Your task to perform on an android device: Add "usb-a" to the cart on newegg.com Image 0: 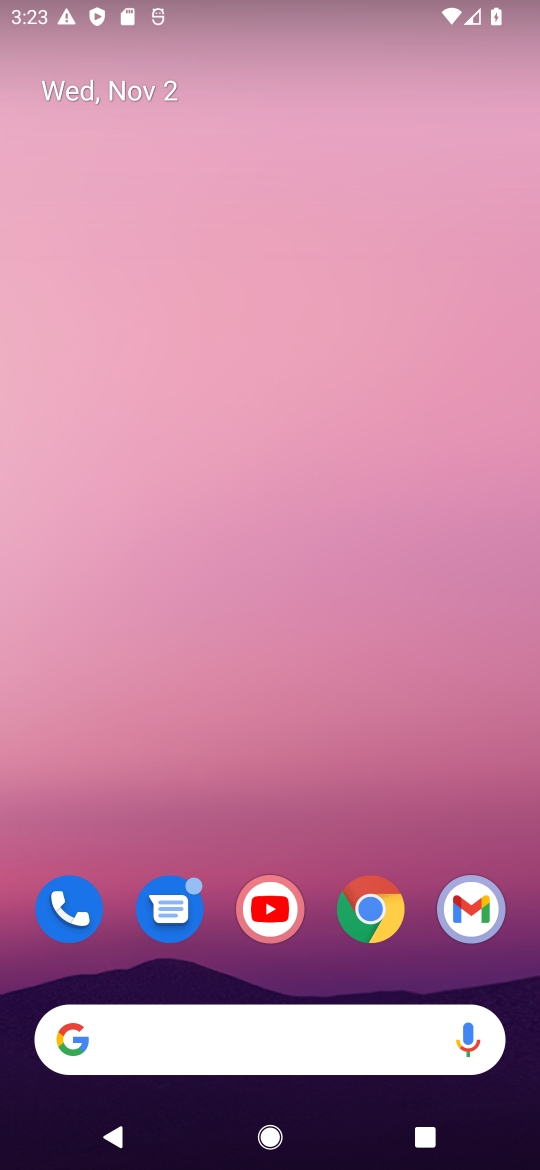
Step 0: click (372, 910)
Your task to perform on an android device: Add "usb-a" to the cart on newegg.com Image 1: 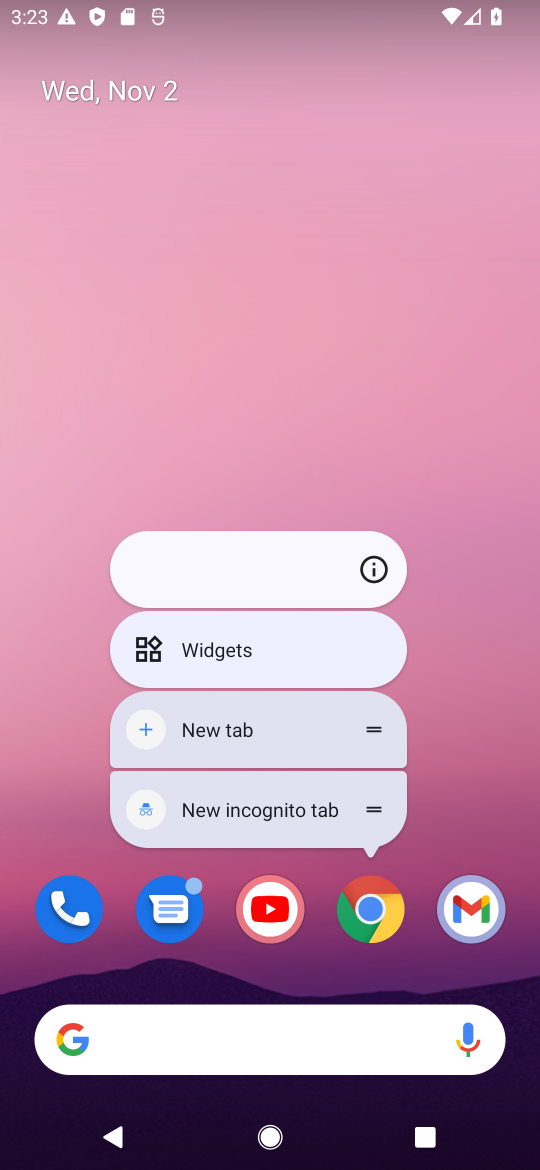
Step 1: click (369, 920)
Your task to perform on an android device: Add "usb-a" to the cart on newegg.com Image 2: 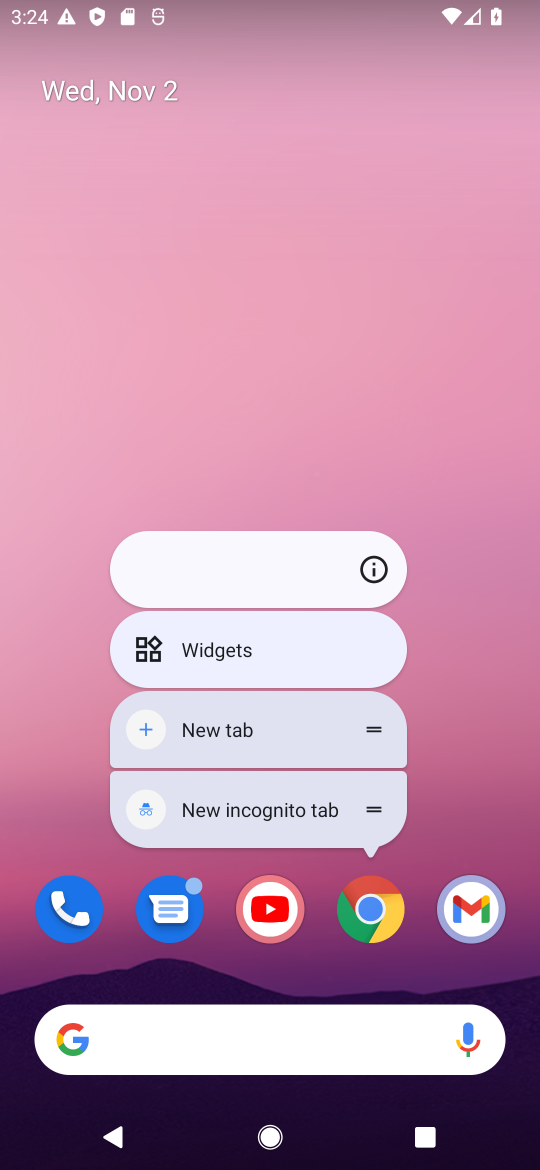
Step 2: click (369, 920)
Your task to perform on an android device: Add "usb-a" to the cart on newegg.com Image 3: 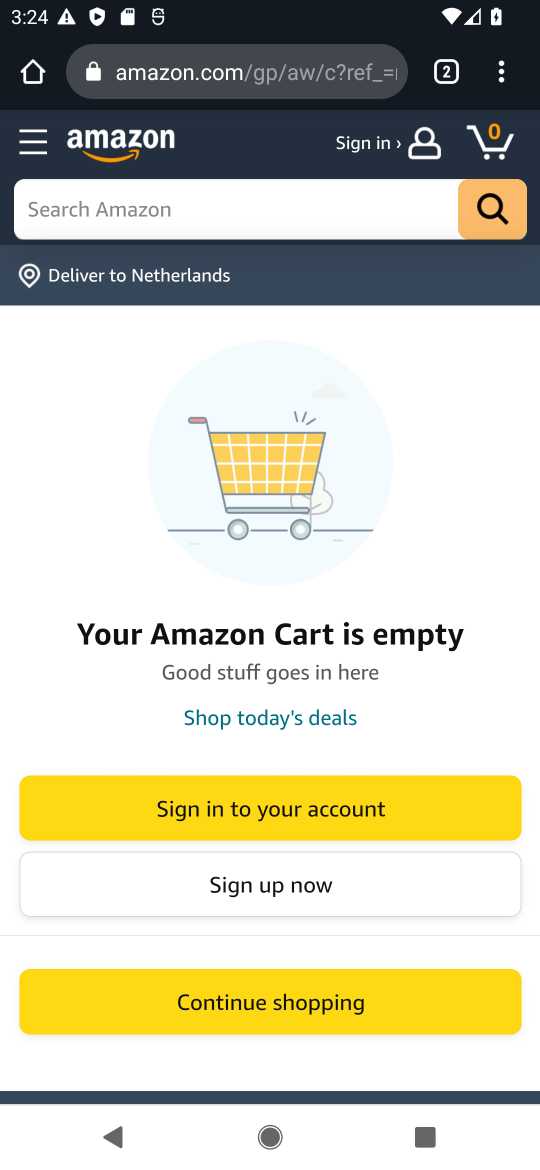
Step 3: click (305, 82)
Your task to perform on an android device: Add "usb-a" to the cart on newegg.com Image 4: 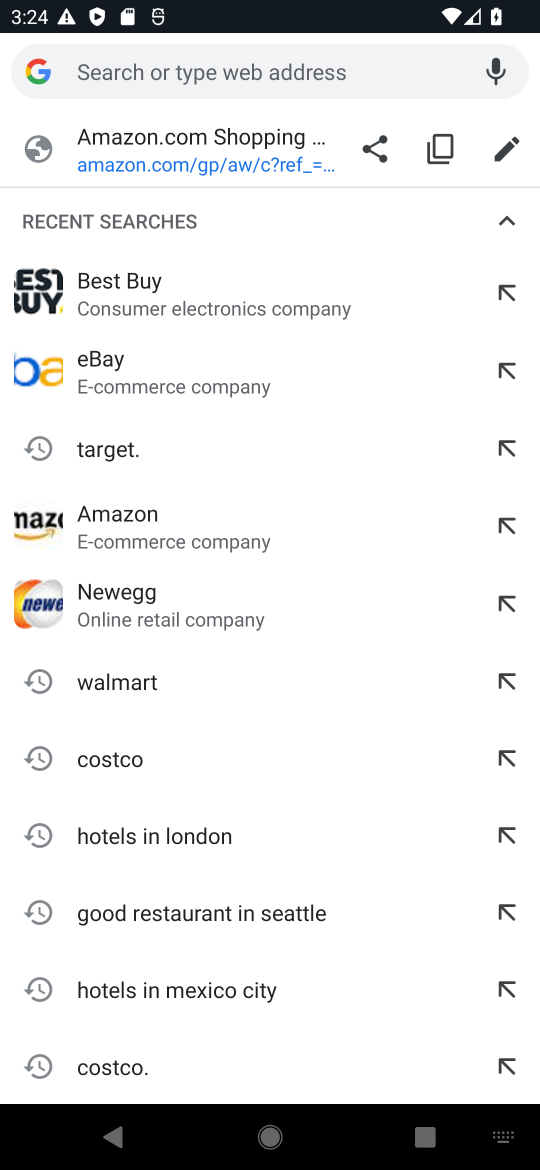
Step 4: click (96, 590)
Your task to perform on an android device: Add "usb-a" to the cart on newegg.com Image 5: 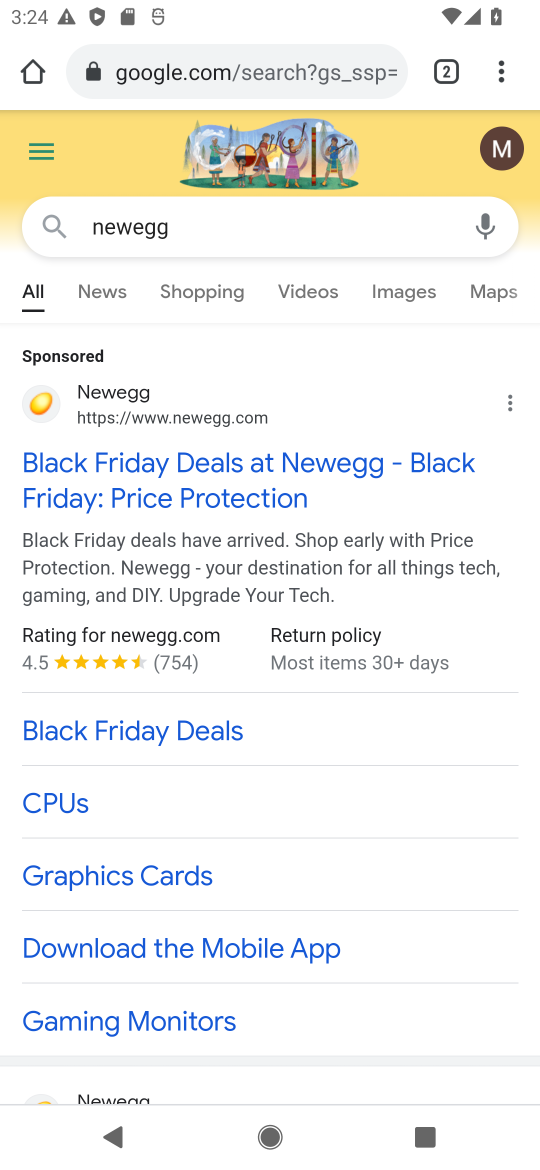
Step 5: click (185, 468)
Your task to perform on an android device: Add "usb-a" to the cart on newegg.com Image 6: 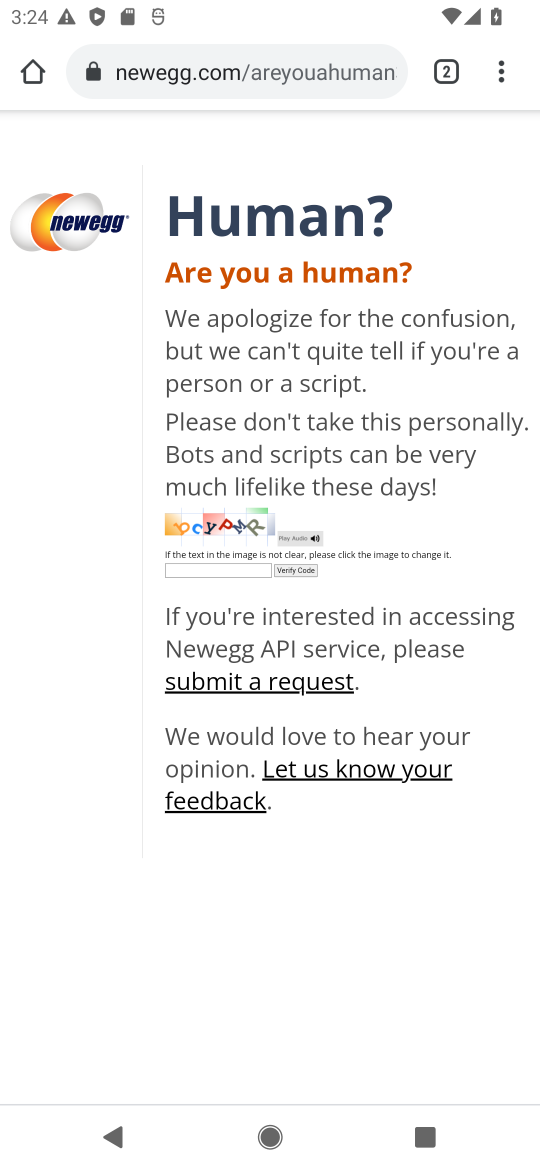
Step 6: click (242, 567)
Your task to perform on an android device: Add "usb-a" to the cart on newegg.com Image 7: 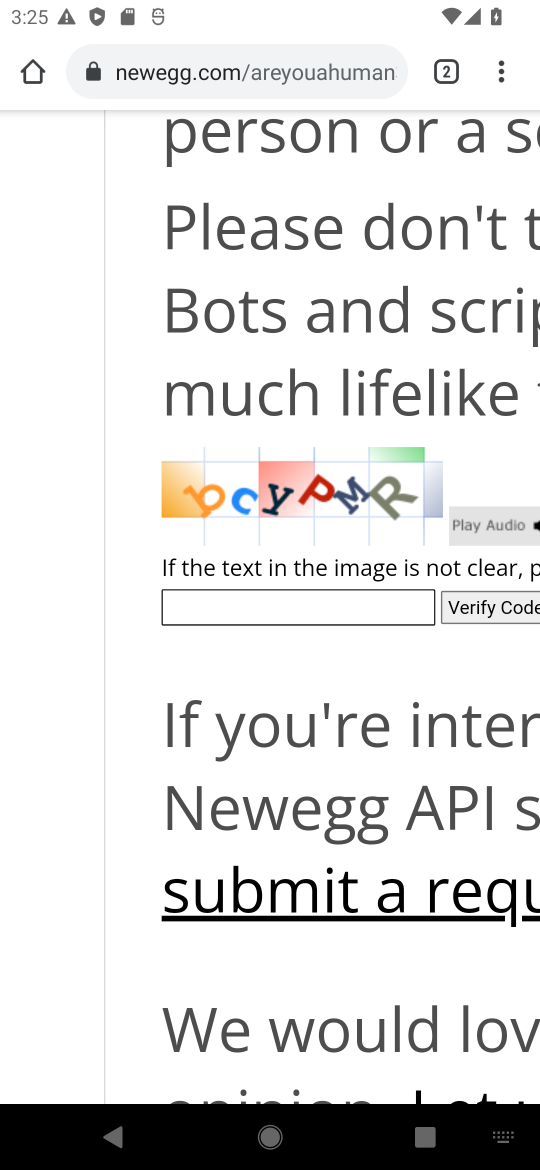
Step 7: press enter
Your task to perform on an android device: Add "usb-a" to the cart on newegg.com Image 8: 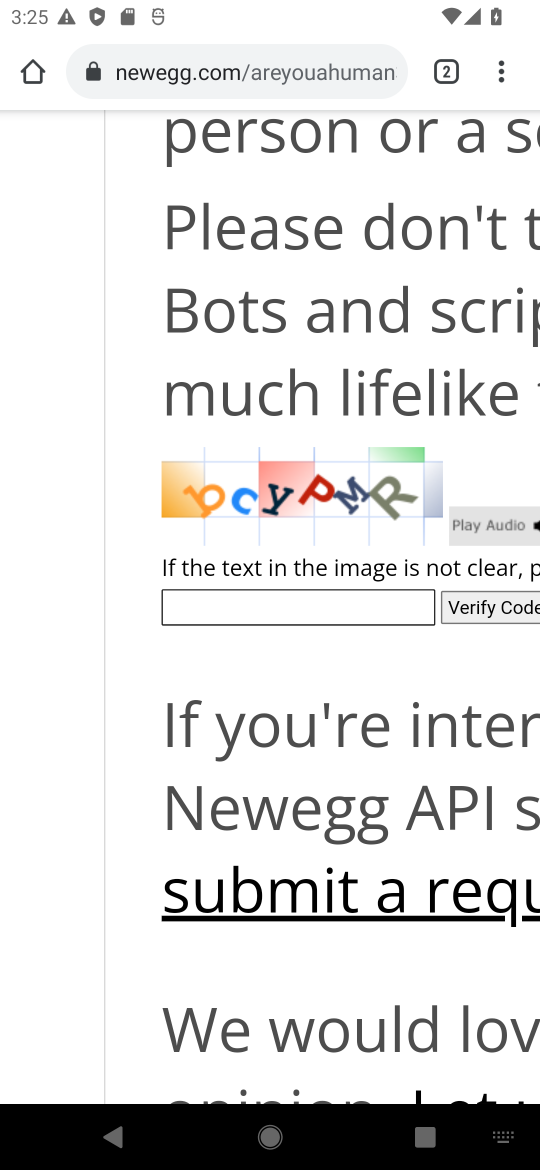
Step 8: type "bcyPMR"
Your task to perform on an android device: Add "usb-a" to the cart on newegg.com Image 9: 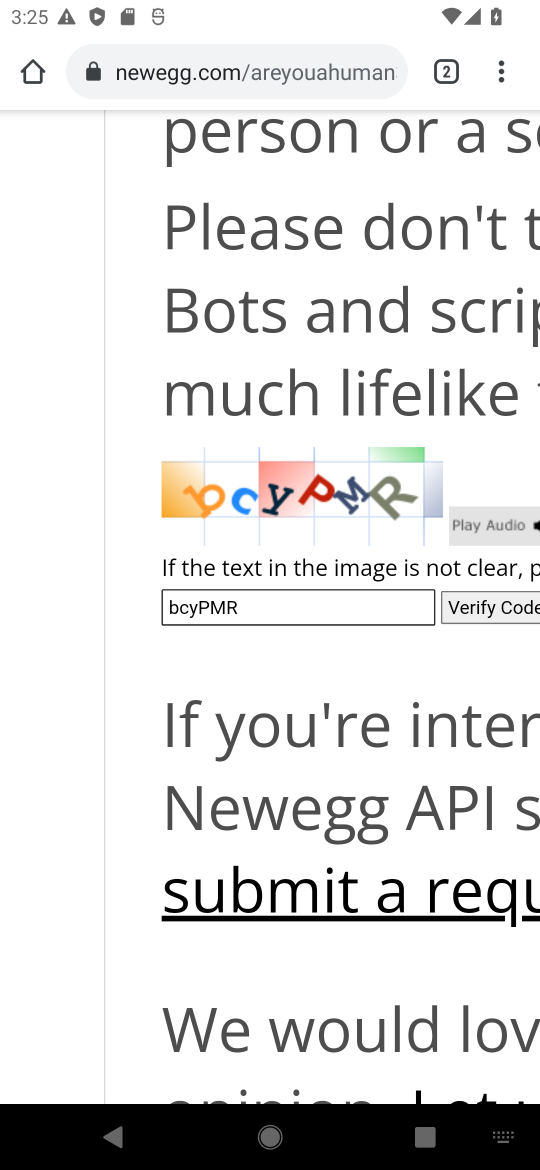
Step 9: click (485, 610)
Your task to perform on an android device: Add "usb-a" to the cart on newegg.com Image 10: 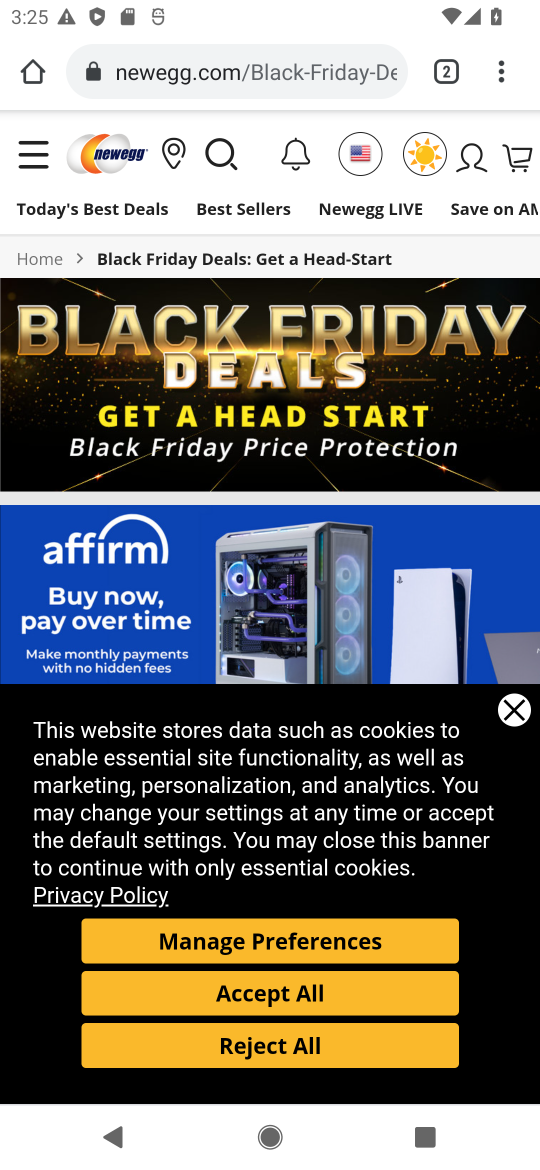
Step 10: click (220, 154)
Your task to perform on an android device: Add "usb-a" to the cart on newegg.com Image 11: 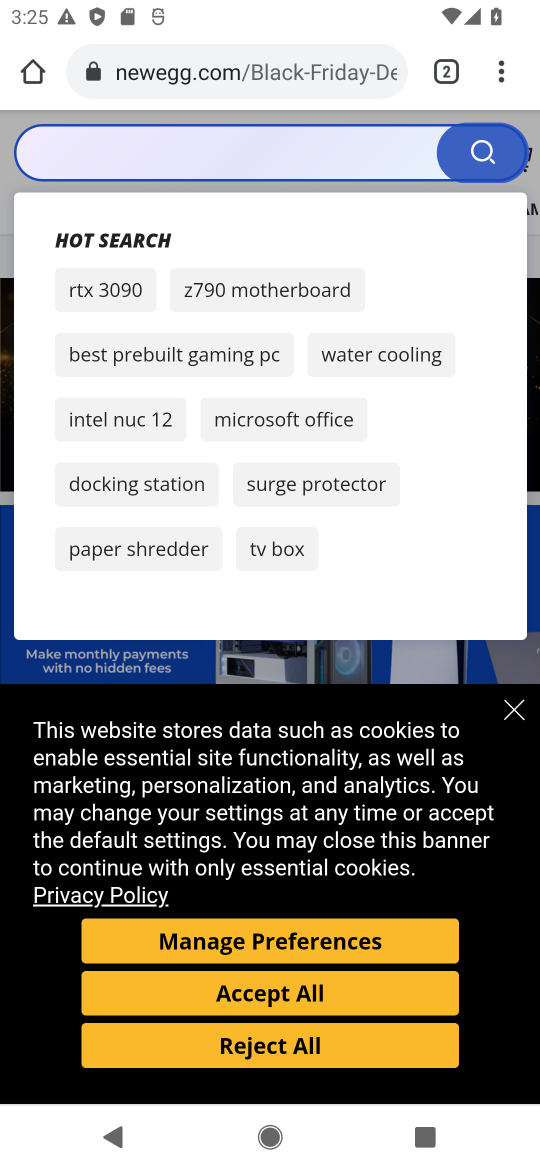
Step 11: type "usb-a"
Your task to perform on an android device: Add "usb-a" to the cart on newegg.com Image 12: 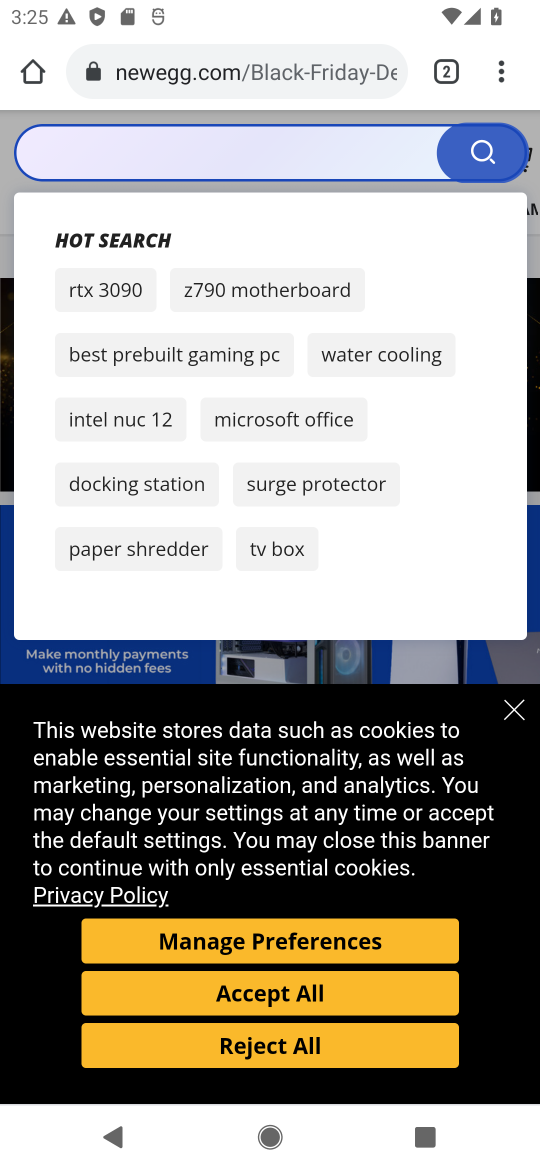
Step 12: press enter
Your task to perform on an android device: Add "usb-a" to the cart on newegg.com Image 13: 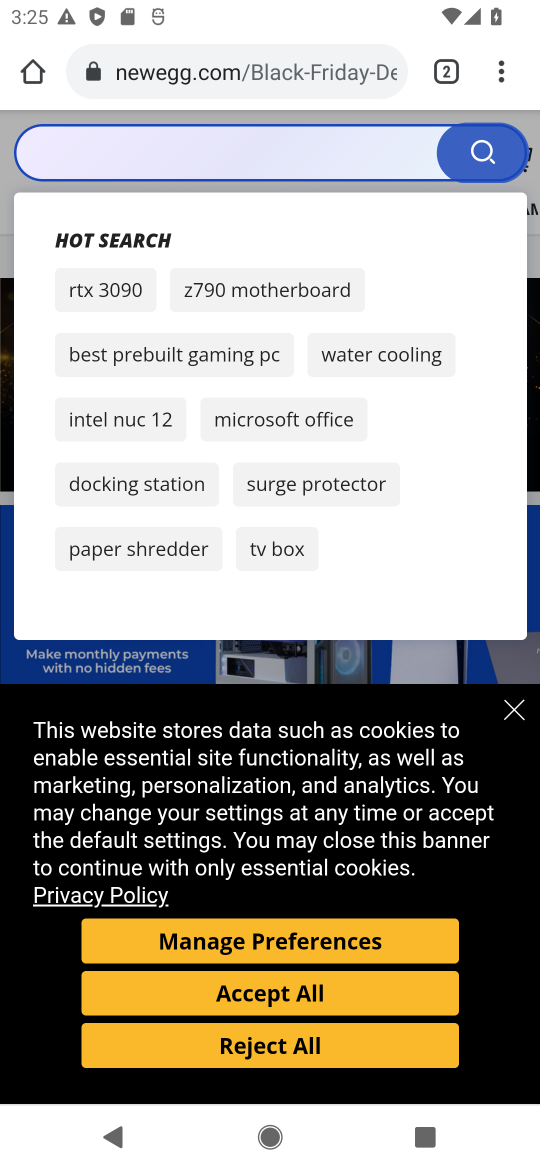
Step 13: click (103, 143)
Your task to perform on an android device: Add "usb-a" to the cart on newegg.com Image 14: 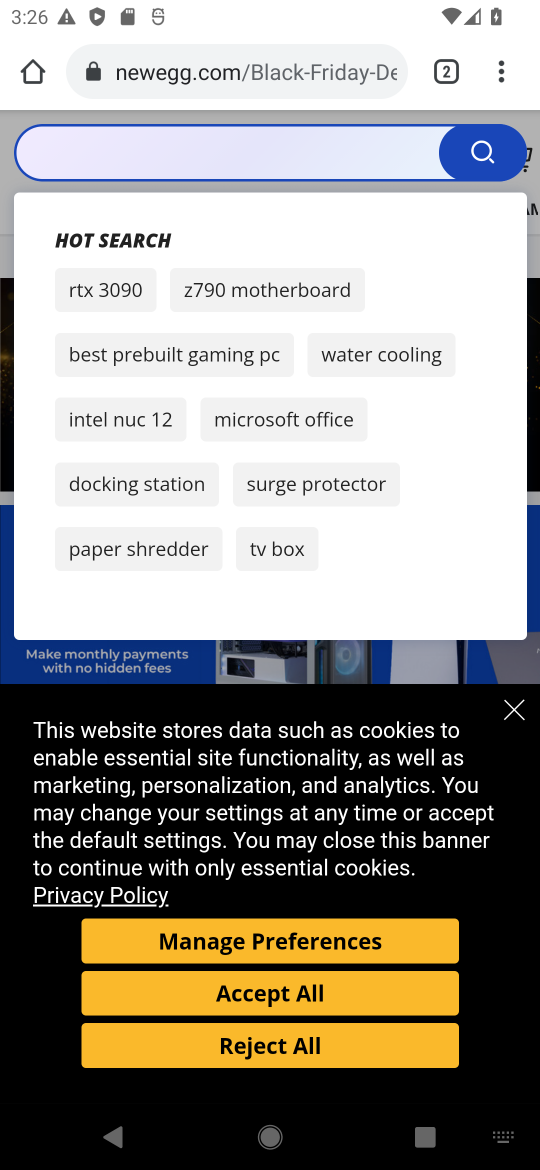
Step 14: type "usb-a"
Your task to perform on an android device: Add "usb-a" to the cart on newegg.com Image 15: 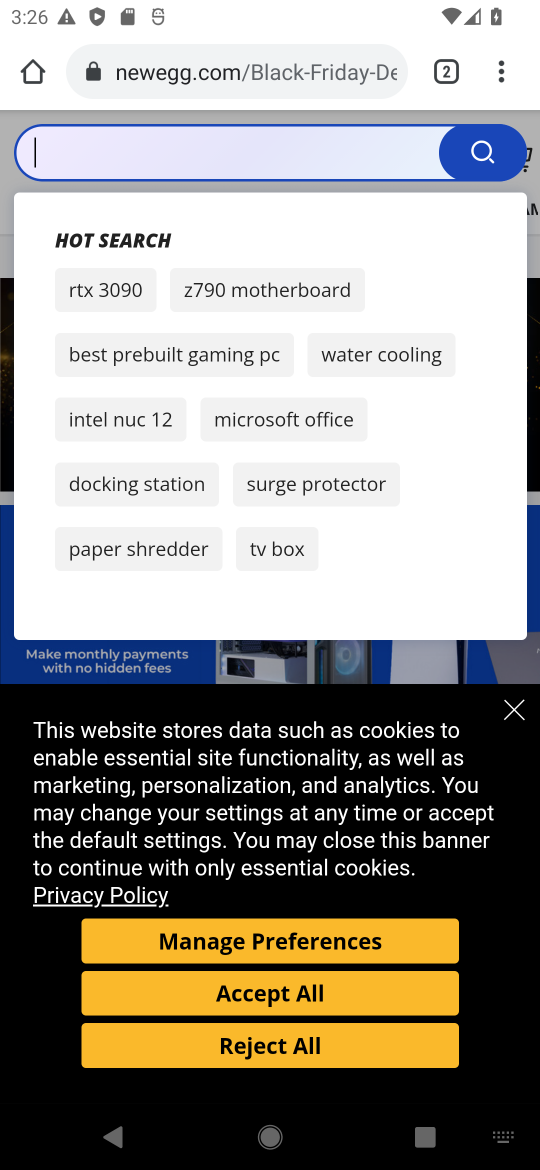
Step 15: press enter
Your task to perform on an android device: Add "usb-a" to the cart on newegg.com Image 16: 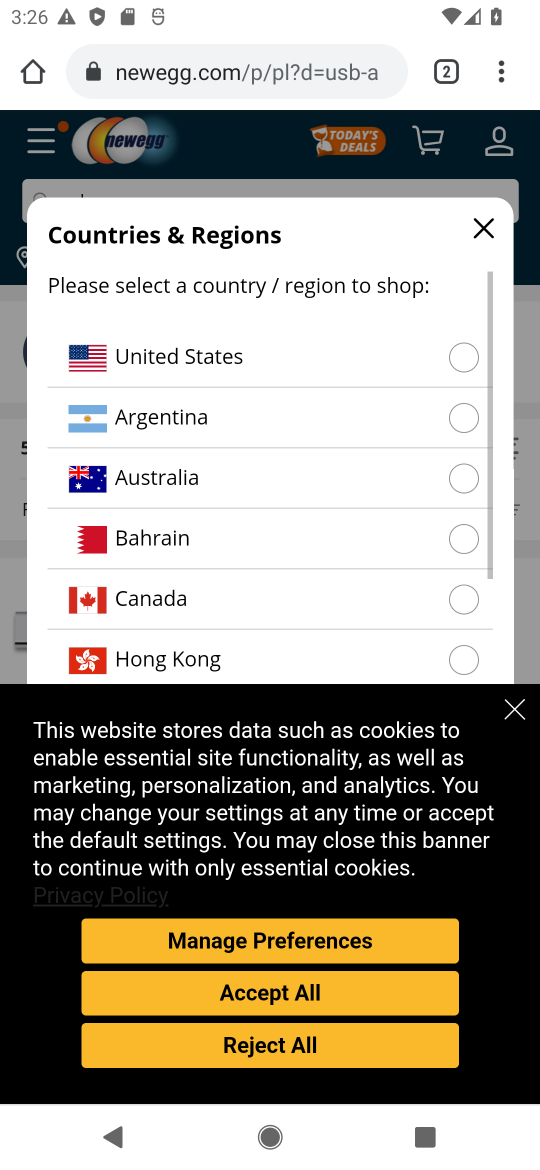
Step 16: click (516, 710)
Your task to perform on an android device: Add "usb-a" to the cart on newegg.com Image 17: 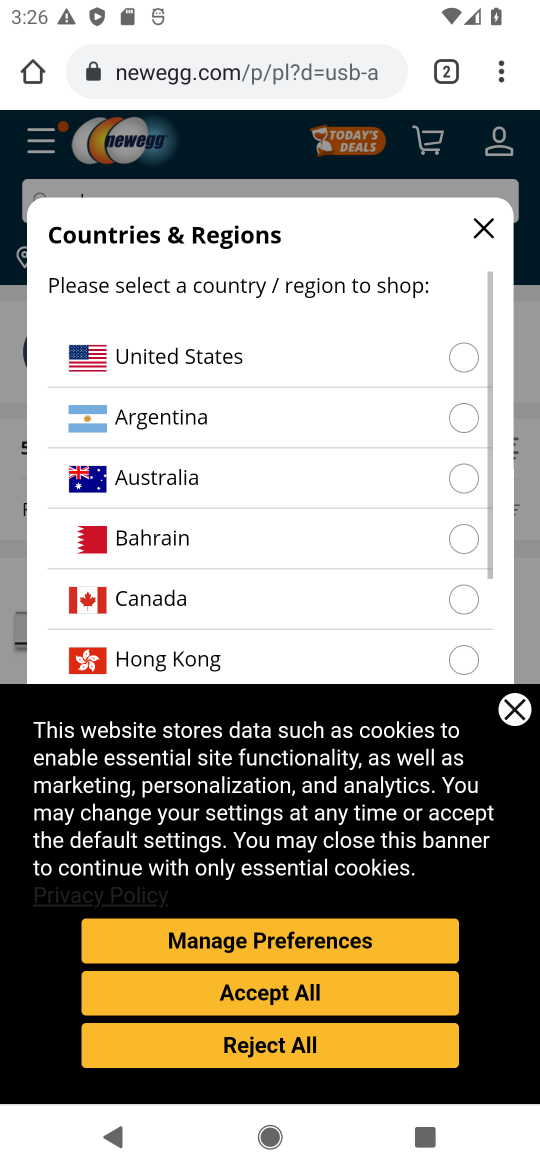
Step 17: click (483, 221)
Your task to perform on an android device: Add "usb-a" to the cart on newegg.com Image 18: 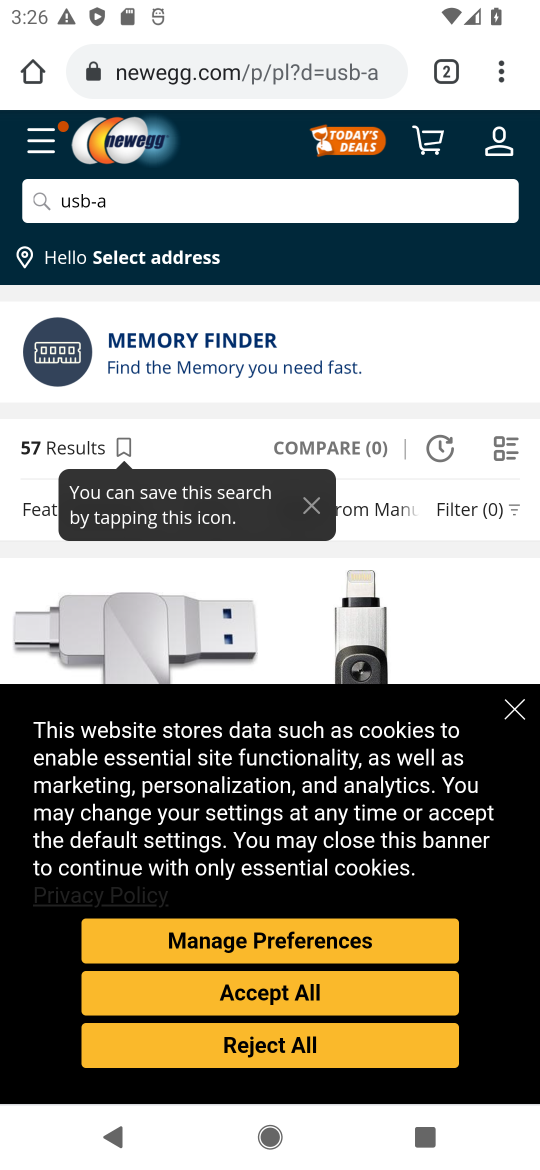
Step 18: click (520, 705)
Your task to perform on an android device: Add "usb-a" to the cart on newegg.com Image 19: 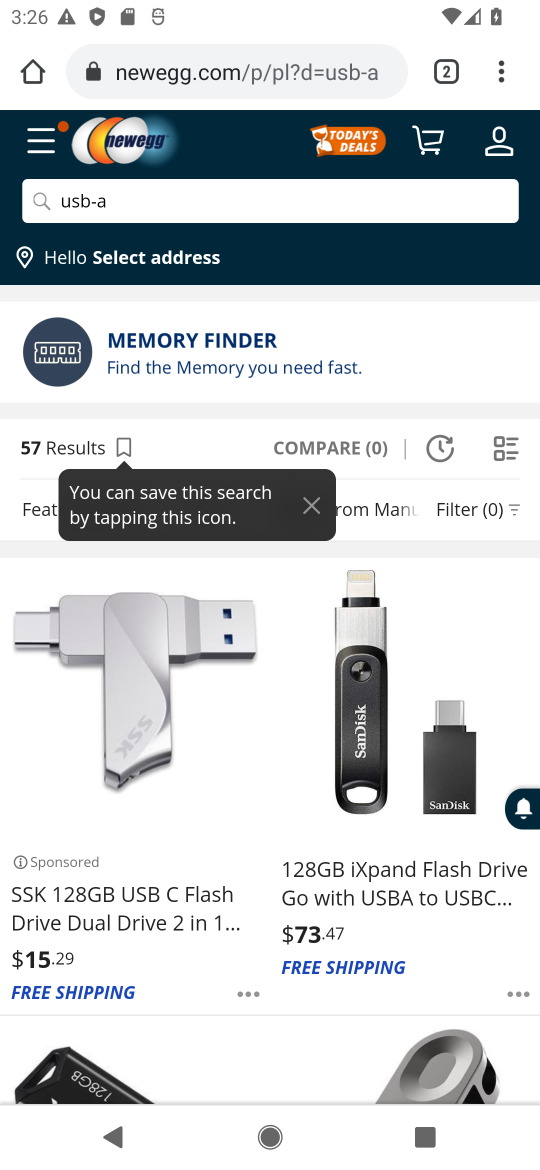
Step 19: click (383, 742)
Your task to perform on an android device: Add "usb-a" to the cart on newegg.com Image 20: 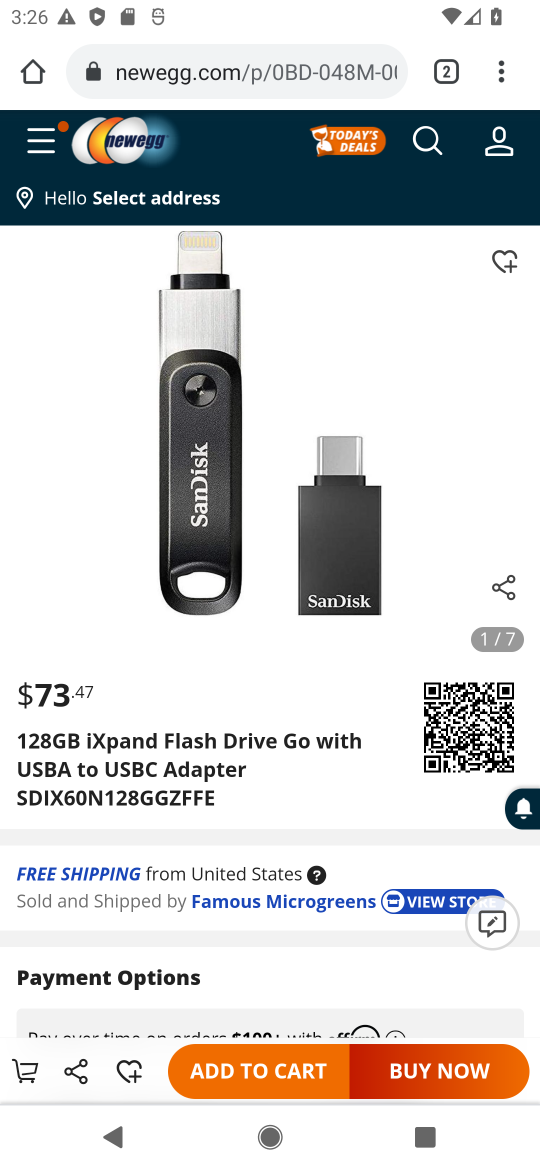
Step 20: task complete